Your task to perform on an android device: Go to location settings Image 0: 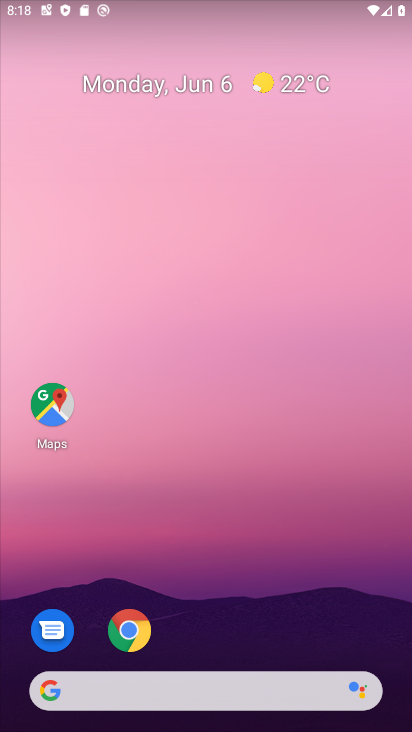
Step 0: drag from (180, 727) to (216, 76)
Your task to perform on an android device: Go to location settings Image 1: 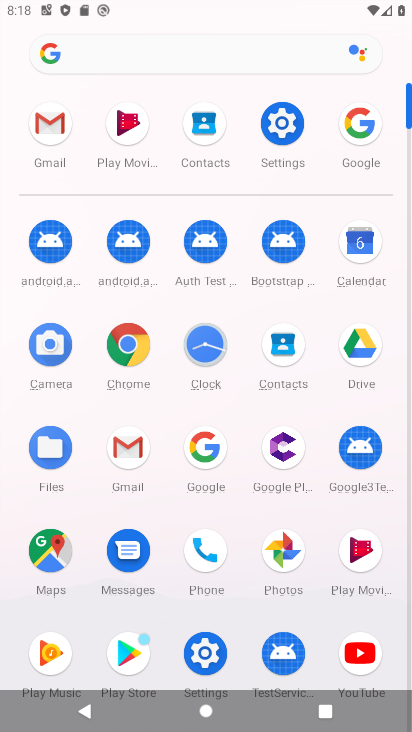
Step 1: click (279, 121)
Your task to perform on an android device: Go to location settings Image 2: 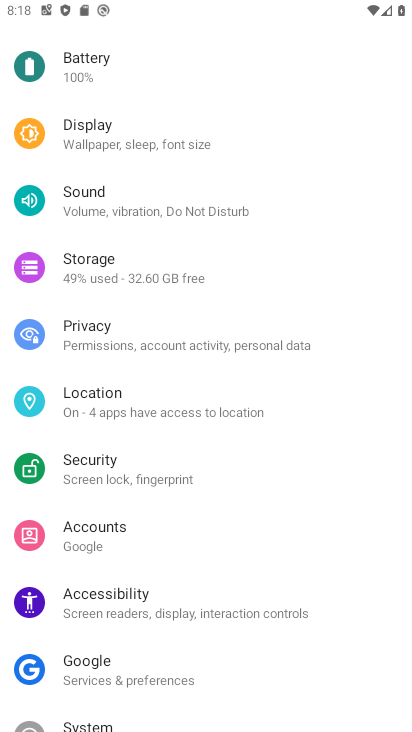
Step 2: click (59, 387)
Your task to perform on an android device: Go to location settings Image 3: 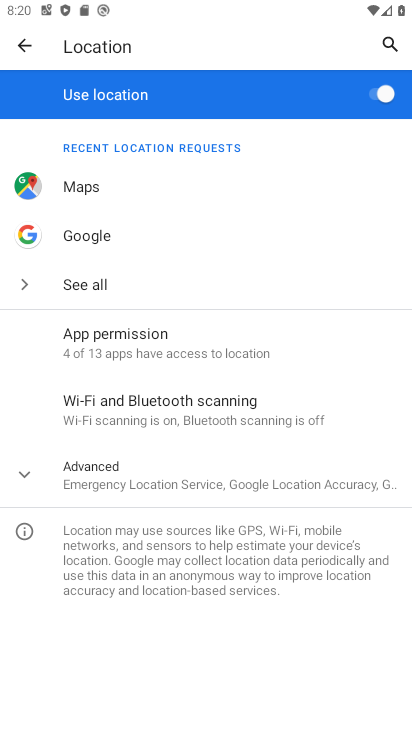
Step 3: task complete